Your task to perform on an android device: Open calendar and show me the fourth week of next month Image 0: 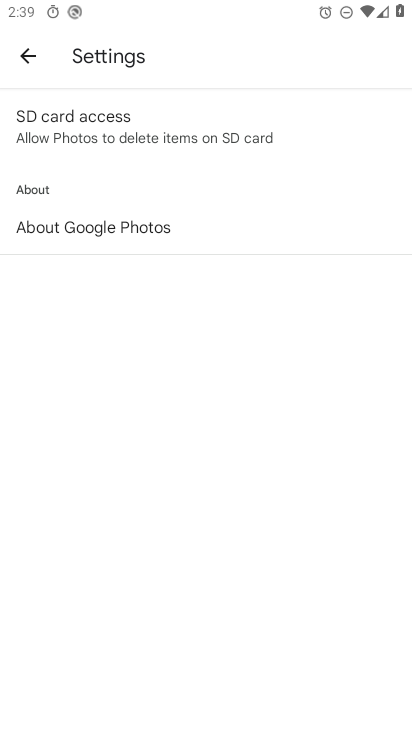
Step 0: press home button
Your task to perform on an android device: Open calendar and show me the fourth week of next month Image 1: 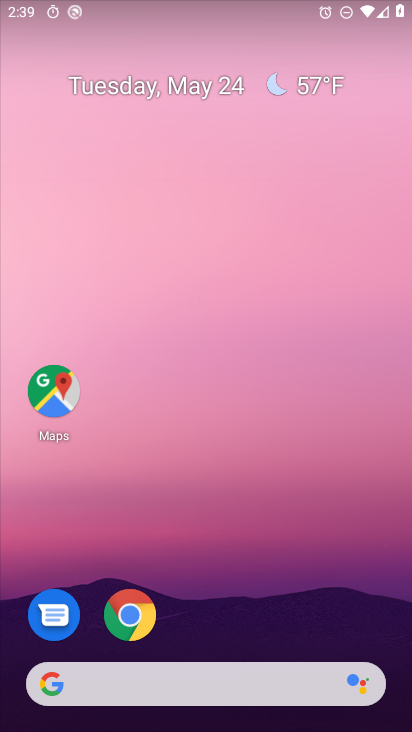
Step 1: drag from (239, 598) to (239, 214)
Your task to perform on an android device: Open calendar and show me the fourth week of next month Image 2: 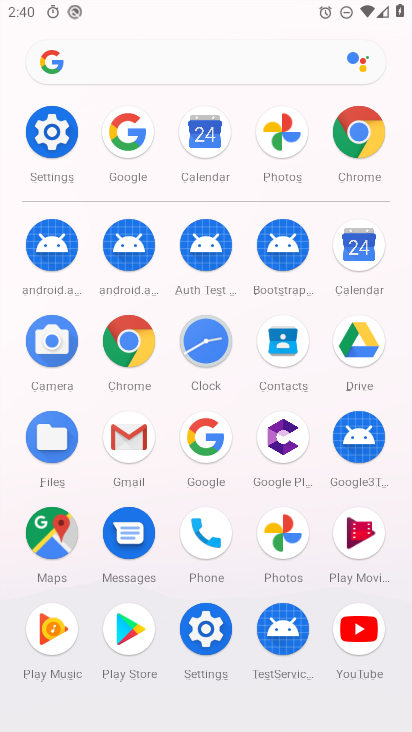
Step 2: click (194, 128)
Your task to perform on an android device: Open calendar and show me the fourth week of next month Image 3: 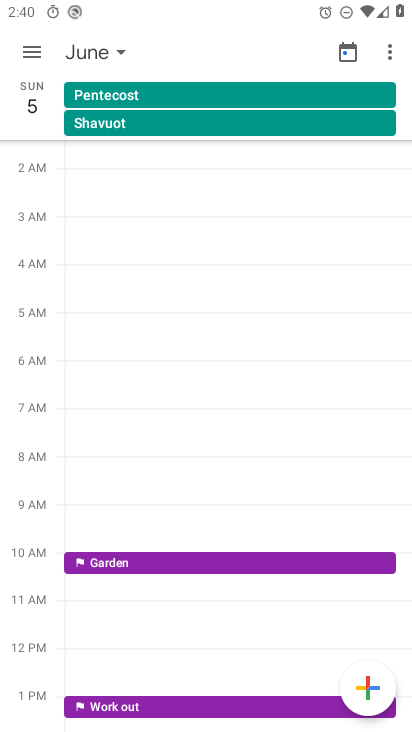
Step 3: click (97, 54)
Your task to perform on an android device: Open calendar and show me the fourth week of next month Image 4: 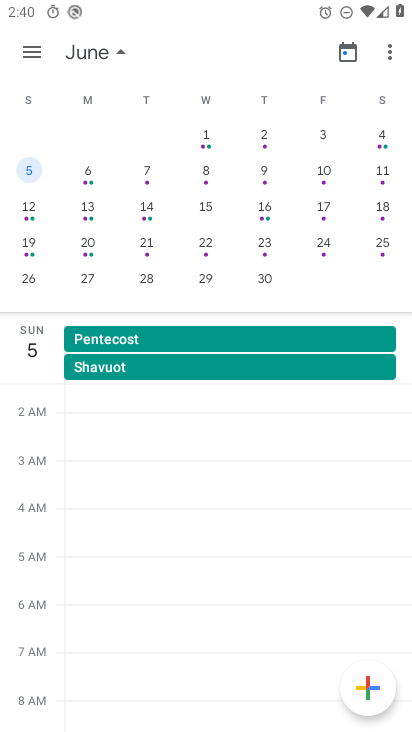
Step 4: click (26, 243)
Your task to perform on an android device: Open calendar and show me the fourth week of next month Image 5: 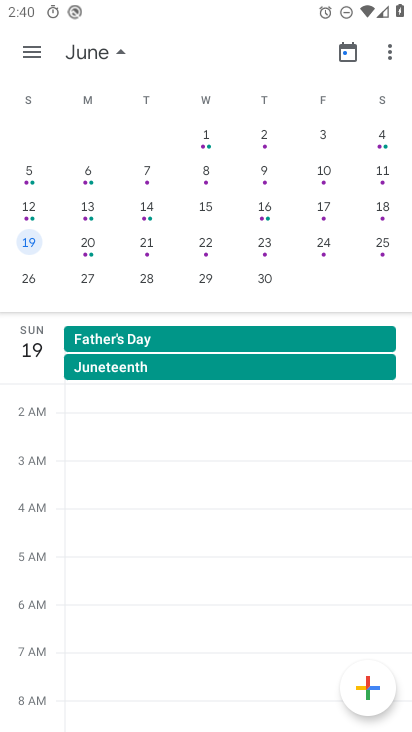
Step 5: task complete